Your task to perform on an android device: turn on the 24-hour format for clock Image 0: 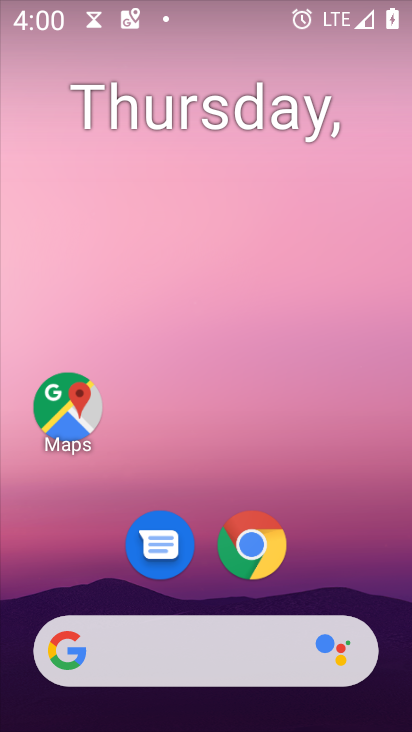
Step 0: drag from (374, 519) to (268, 24)
Your task to perform on an android device: turn on the 24-hour format for clock Image 1: 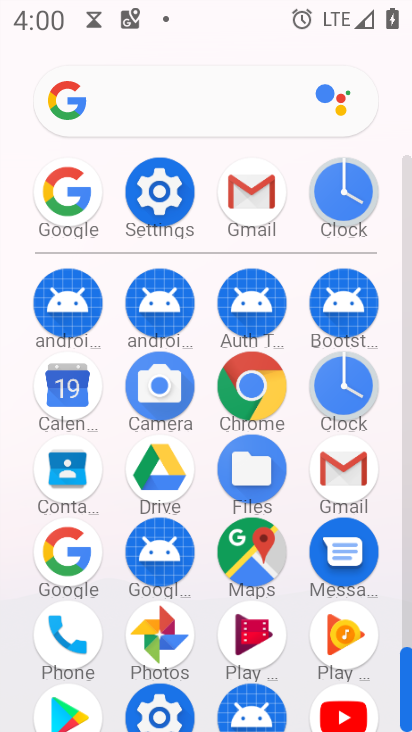
Step 1: click (348, 401)
Your task to perform on an android device: turn on the 24-hour format for clock Image 2: 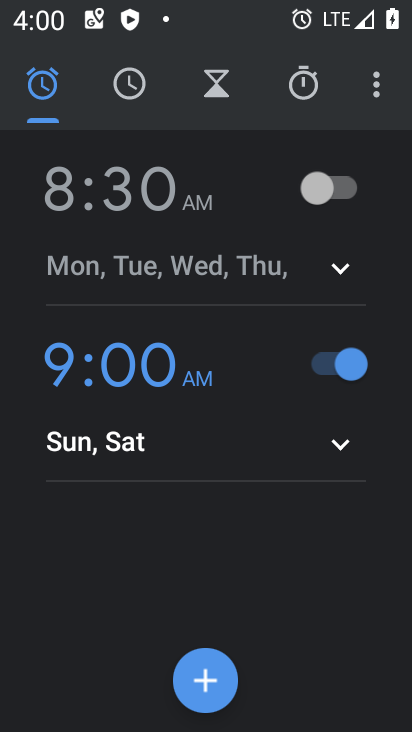
Step 2: click (365, 76)
Your task to perform on an android device: turn on the 24-hour format for clock Image 3: 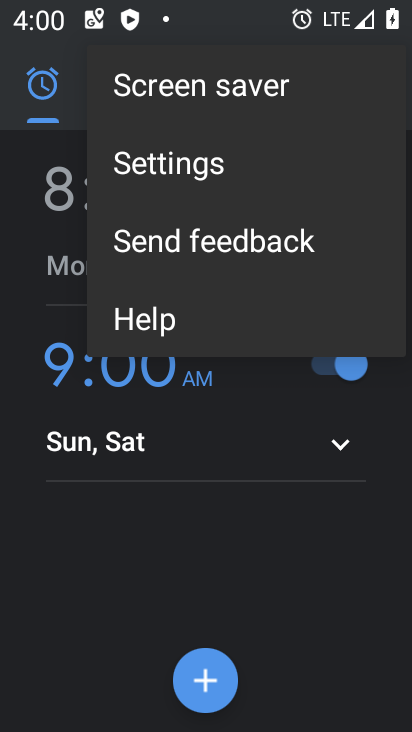
Step 3: click (218, 180)
Your task to perform on an android device: turn on the 24-hour format for clock Image 4: 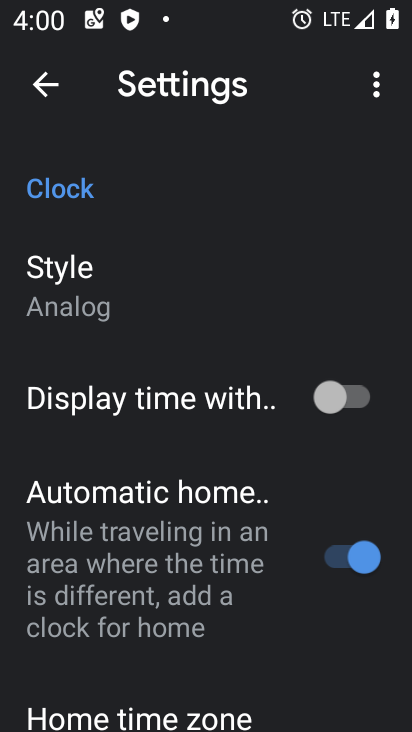
Step 4: drag from (159, 512) to (149, 30)
Your task to perform on an android device: turn on the 24-hour format for clock Image 5: 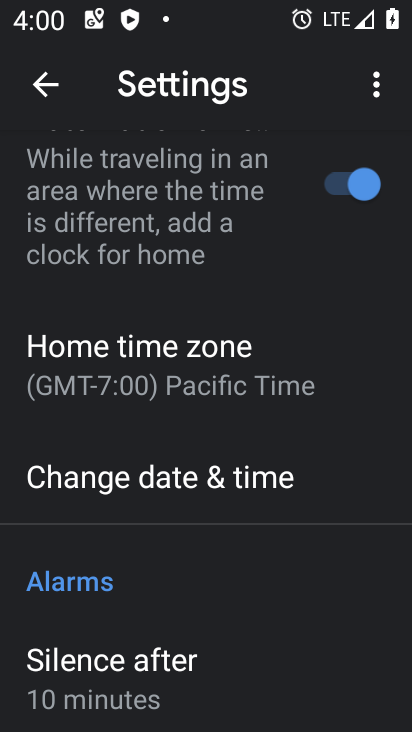
Step 5: drag from (206, 619) to (236, 360)
Your task to perform on an android device: turn on the 24-hour format for clock Image 6: 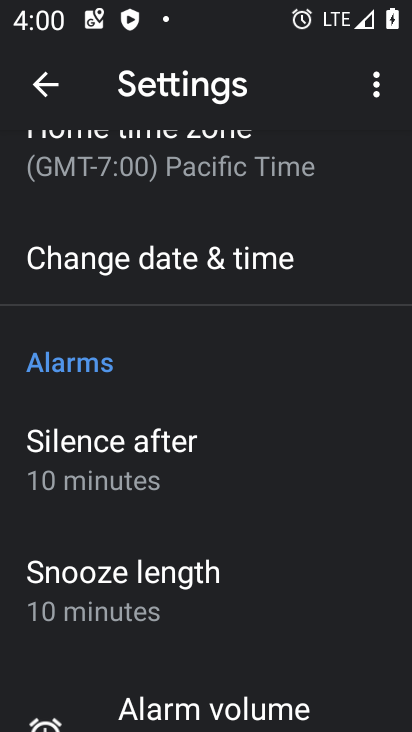
Step 6: click (161, 232)
Your task to perform on an android device: turn on the 24-hour format for clock Image 7: 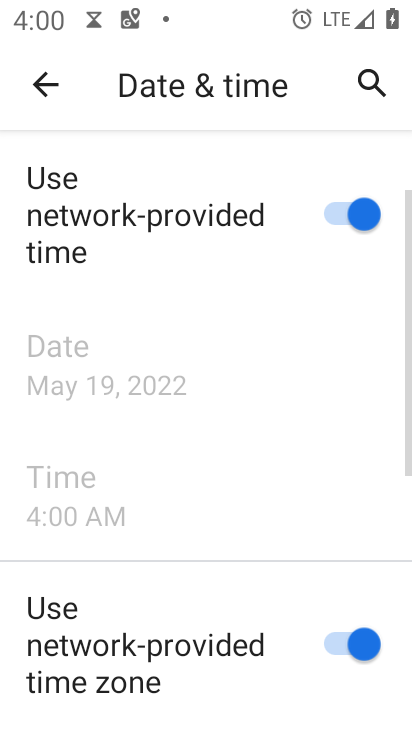
Step 7: drag from (249, 594) to (211, 169)
Your task to perform on an android device: turn on the 24-hour format for clock Image 8: 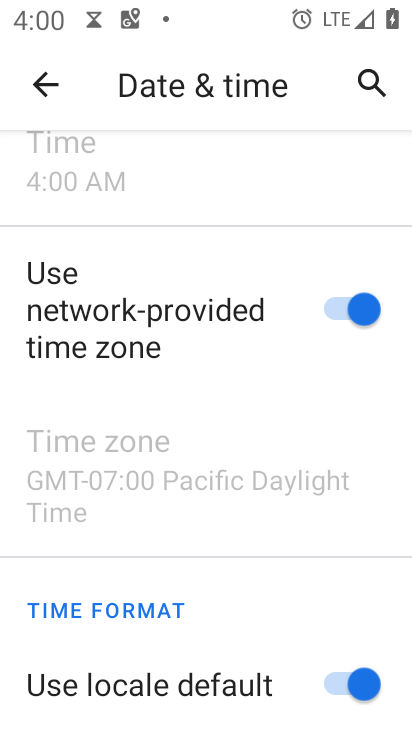
Step 8: drag from (377, 601) to (356, 147)
Your task to perform on an android device: turn on the 24-hour format for clock Image 9: 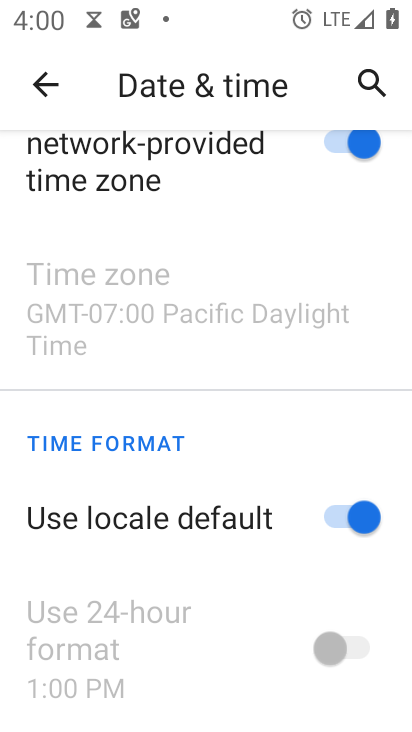
Step 9: click (338, 525)
Your task to perform on an android device: turn on the 24-hour format for clock Image 10: 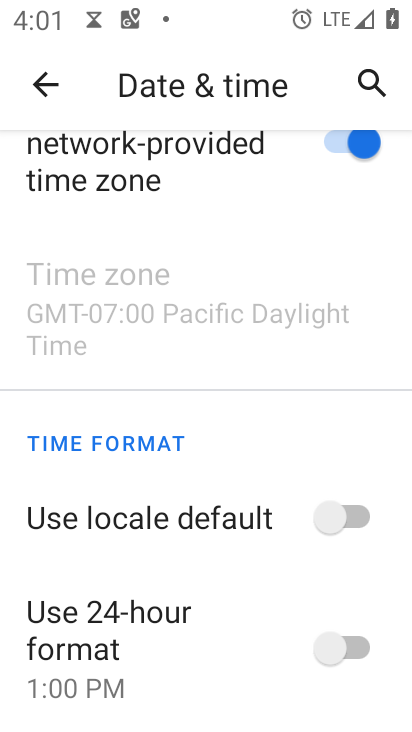
Step 10: task complete